Your task to perform on an android device: Open the map Image 0: 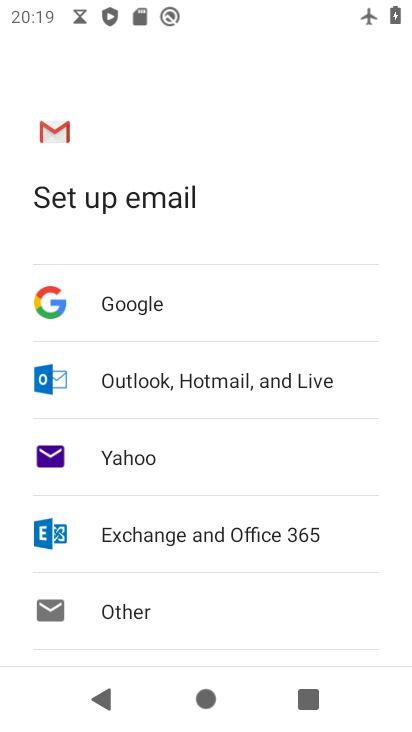
Step 0: press back button
Your task to perform on an android device: Open the map Image 1: 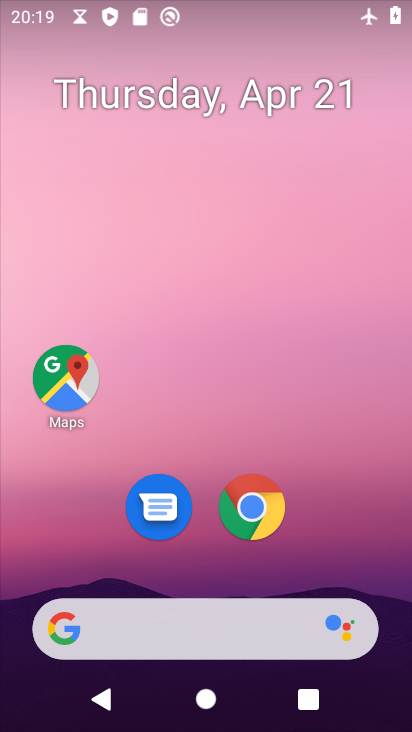
Step 1: click (81, 382)
Your task to perform on an android device: Open the map Image 2: 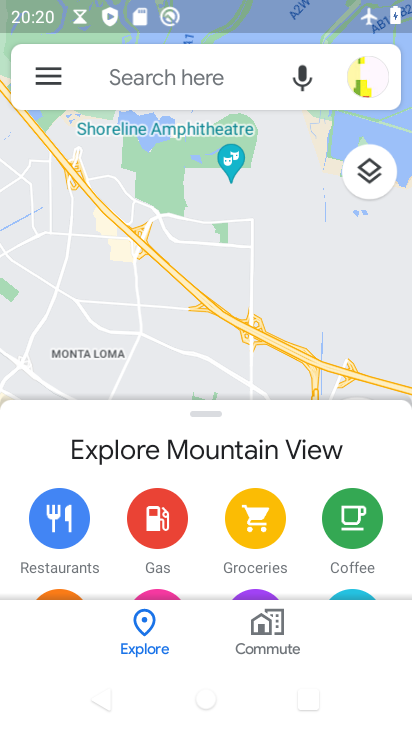
Step 2: task complete